Your task to perform on an android device: Open battery settings Image 0: 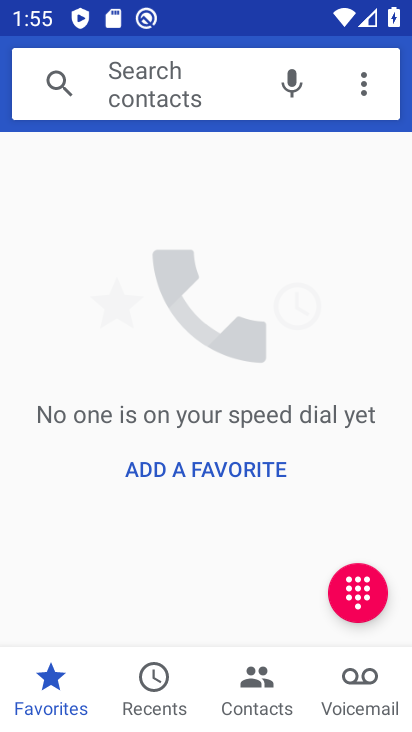
Step 0: press home button
Your task to perform on an android device: Open battery settings Image 1: 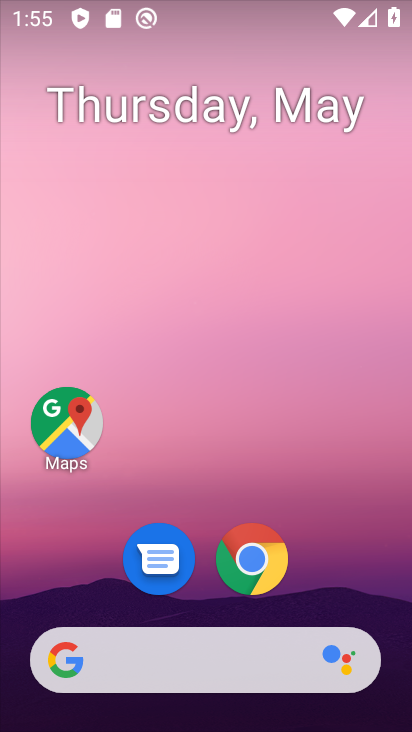
Step 1: drag from (208, 595) to (239, 204)
Your task to perform on an android device: Open battery settings Image 2: 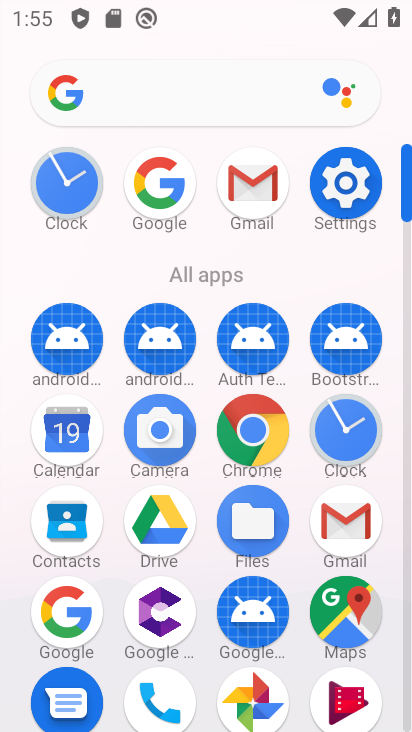
Step 2: click (327, 196)
Your task to perform on an android device: Open battery settings Image 3: 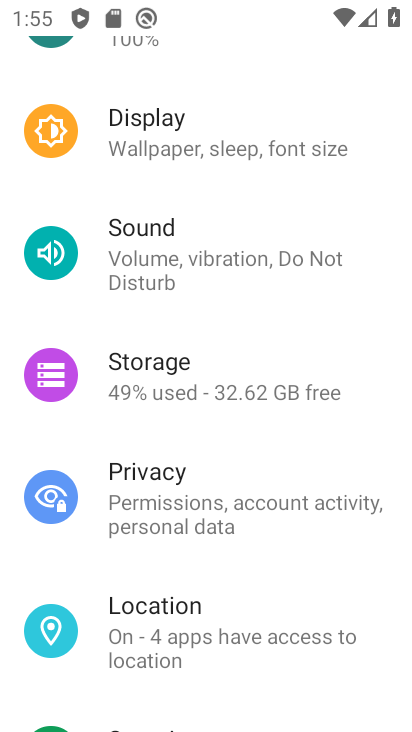
Step 3: drag from (185, 245) to (183, 484)
Your task to perform on an android device: Open battery settings Image 4: 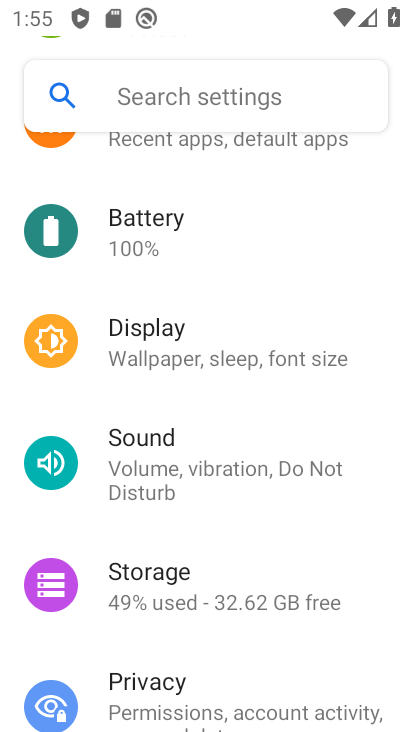
Step 4: click (169, 236)
Your task to perform on an android device: Open battery settings Image 5: 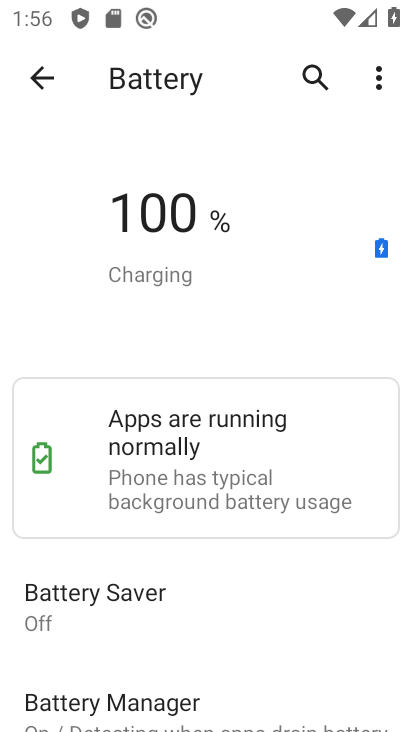
Step 5: drag from (238, 617) to (241, 260)
Your task to perform on an android device: Open battery settings Image 6: 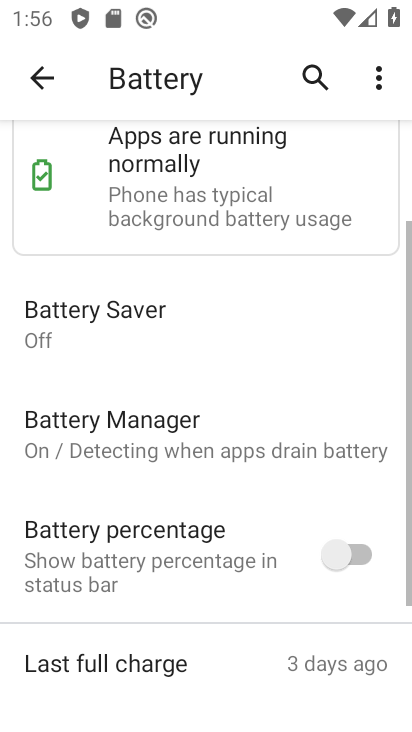
Step 6: drag from (235, 509) to (240, 249)
Your task to perform on an android device: Open battery settings Image 7: 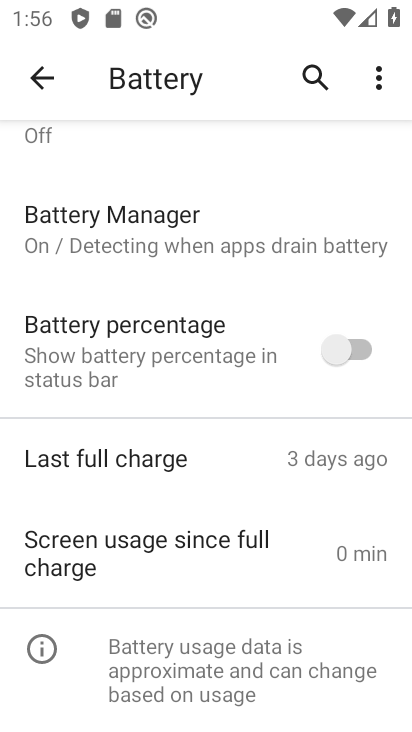
Step 7: click (229, 268)
Your task to perform on an android device: Open battery settings Image 8: 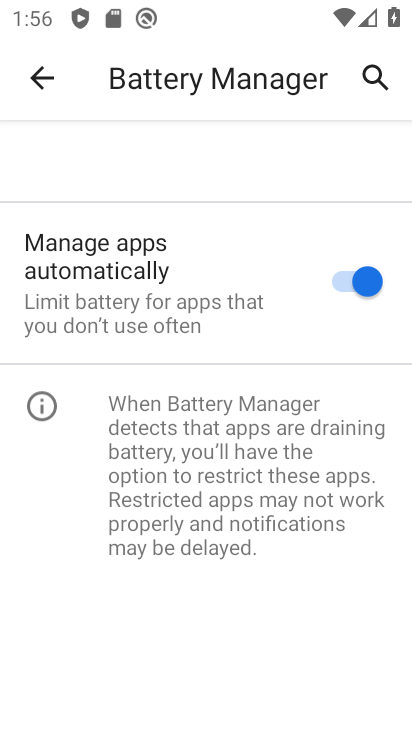
Step 8: task complete